Your task to perform on an android device: Toggle the flashlight Image 0: 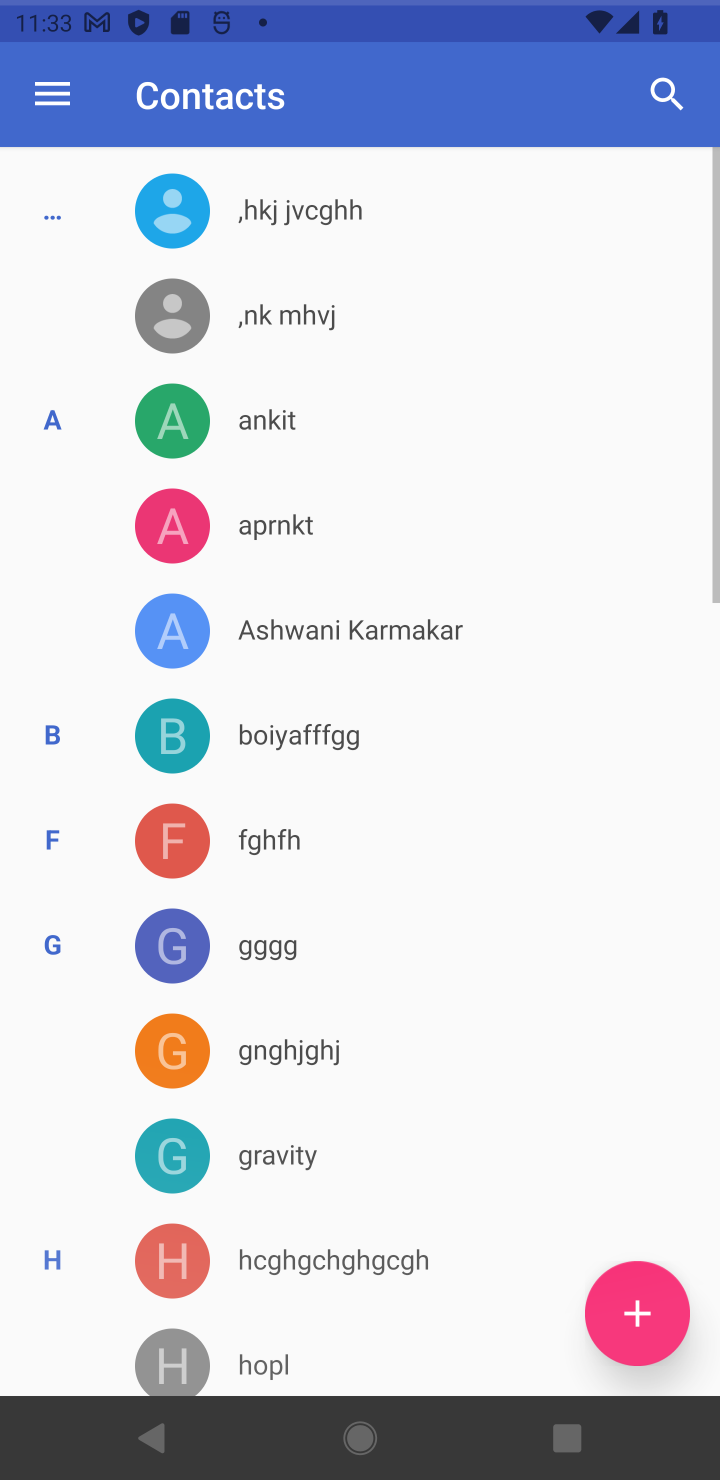
Step 0: press home button
Your task to perform on an android device: Toggle the flashlight Image 1: 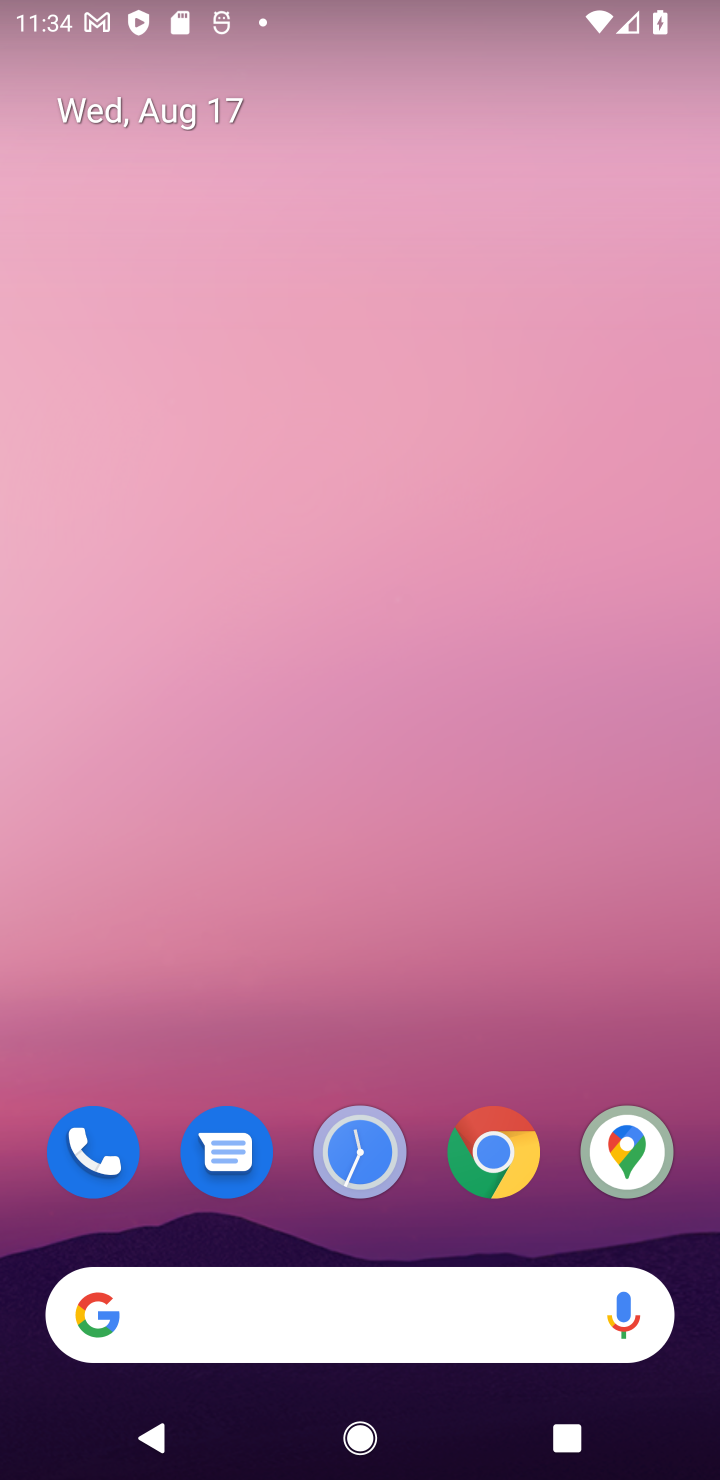
Step 1: drag from (549, 1010) to (387, 52)
Your task to perform on an android device: Toggle the flashlight Image 2: 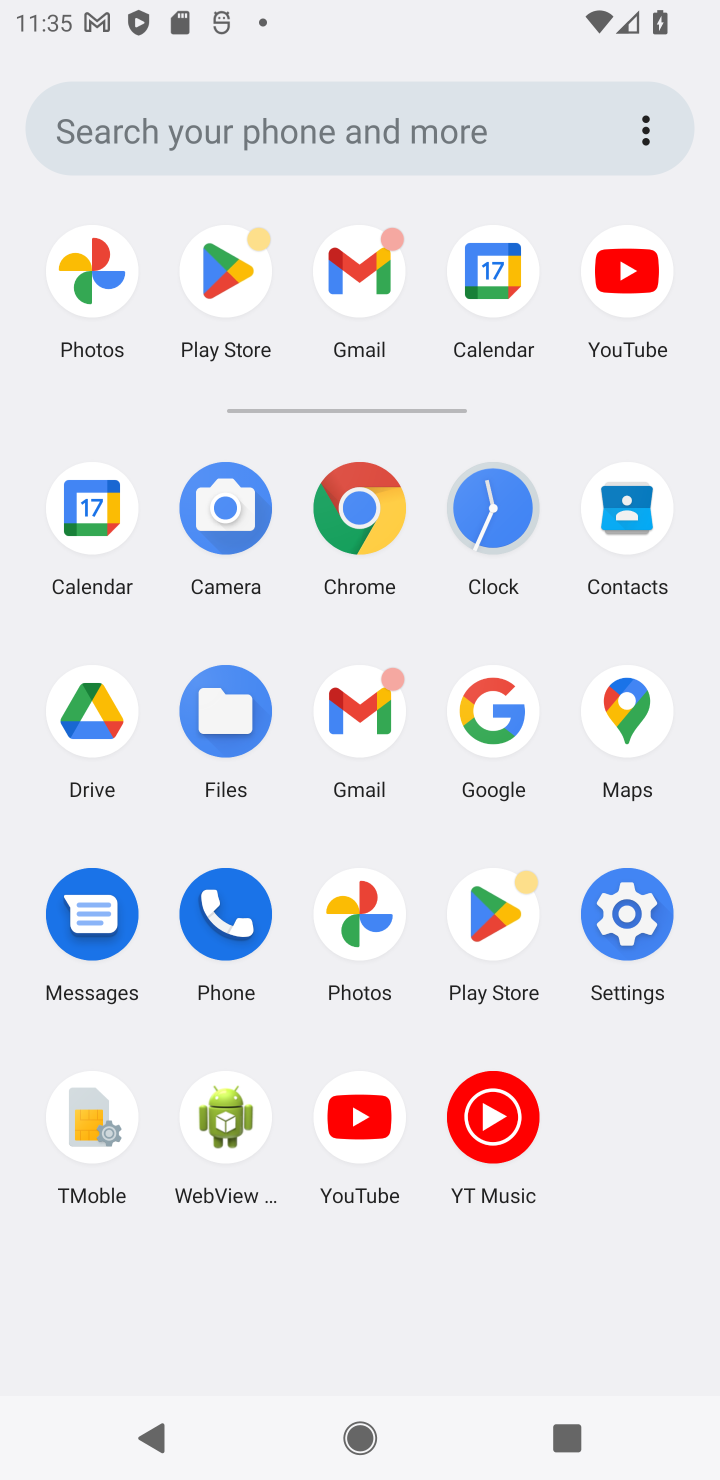
Step 2: click (623, 933)
Your task to perform on an android device: Toggle the flashlight Image 3: 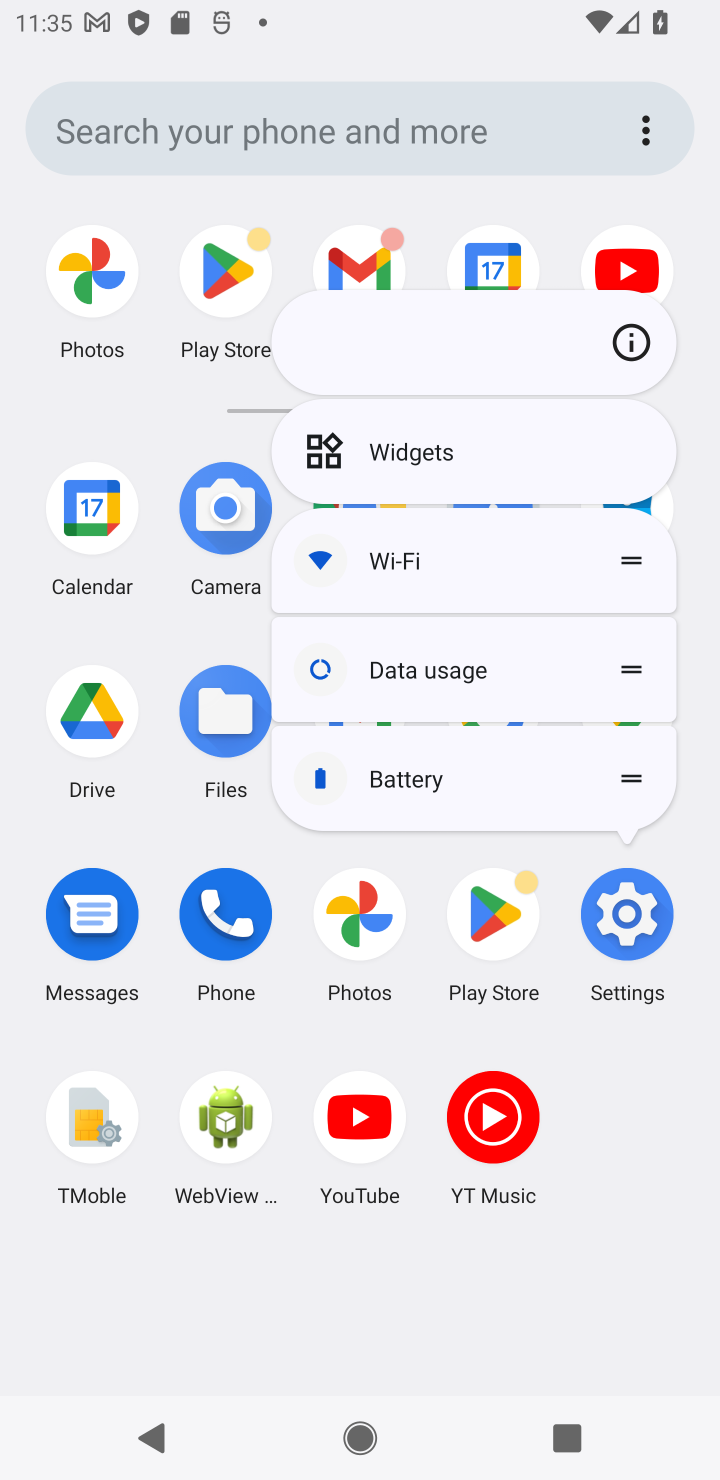
Step 3: click (625, 935)
Your task to perform on an android device: Toggle the flashlight Image 4: 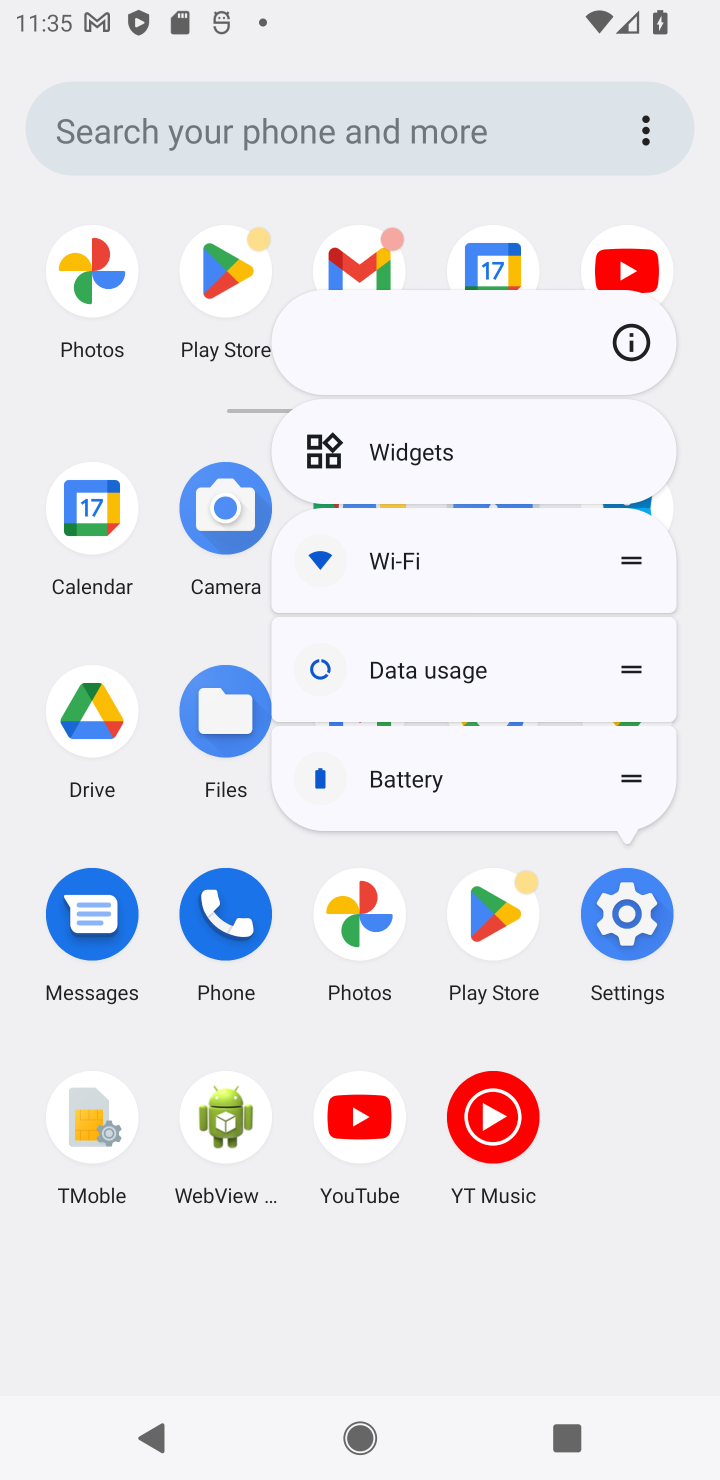
Step 4: click (625, 935)
Your task to perform on an android device: Toggle the flashlight Image 5: 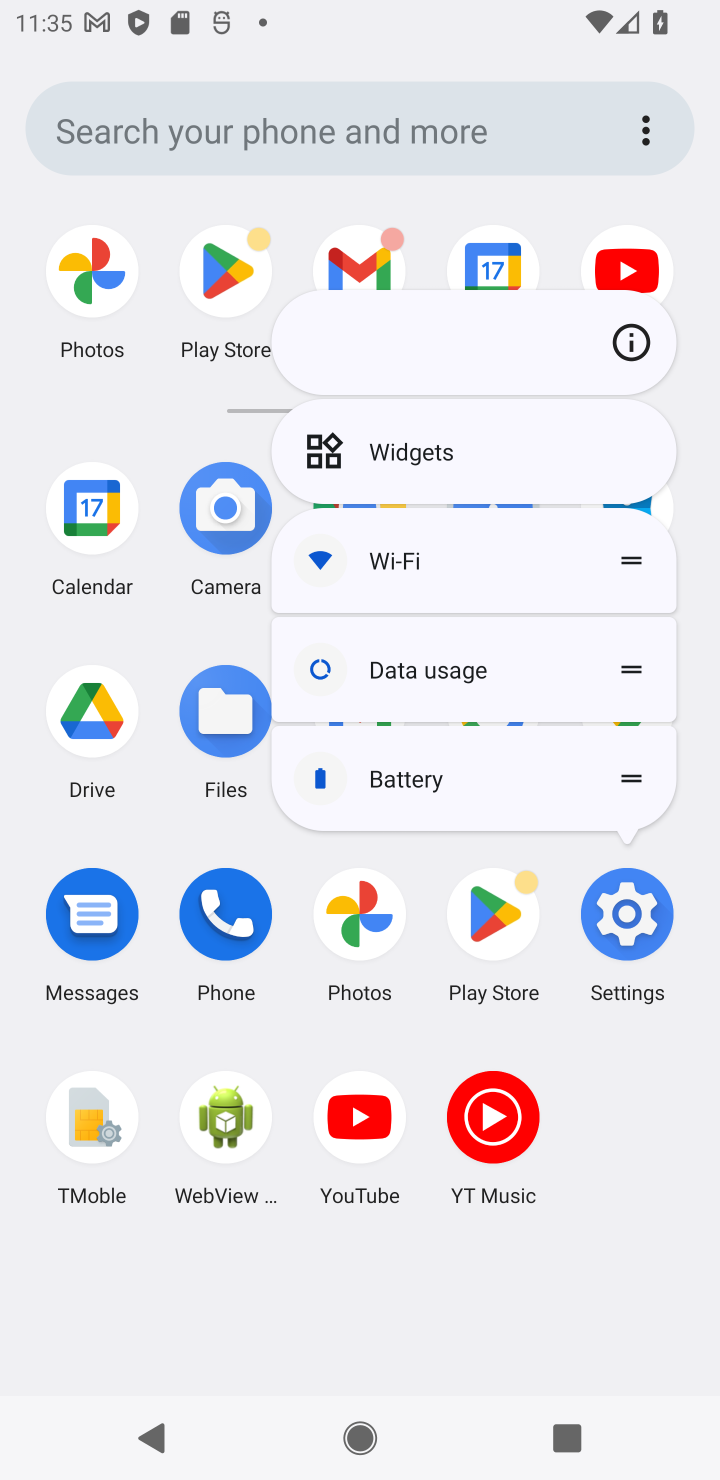
Step 5: click (625, 935)
Your task to perform on an android device: Toggle the flashlight Image 6: 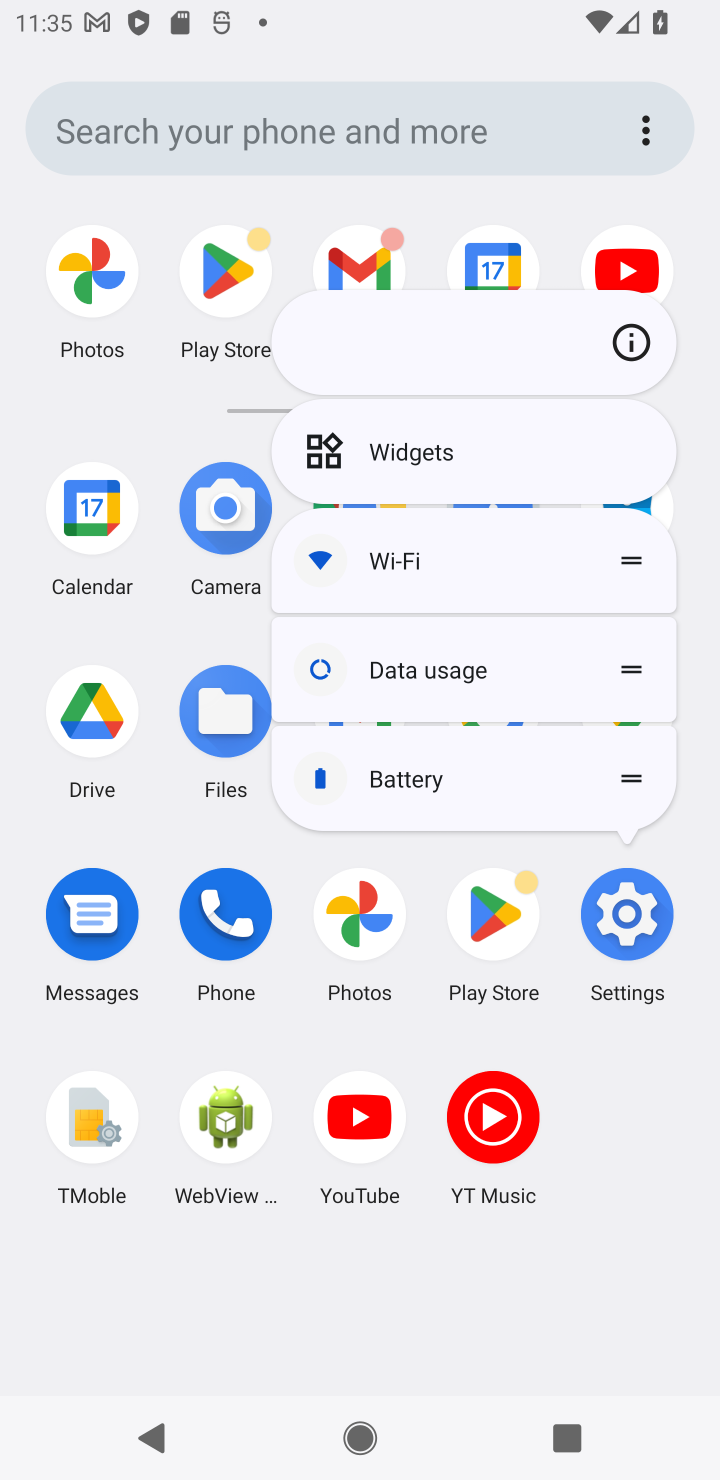
Step 6: click (625, 935)
Your task to perform on an android device: Toggle the flashlight Image 7: 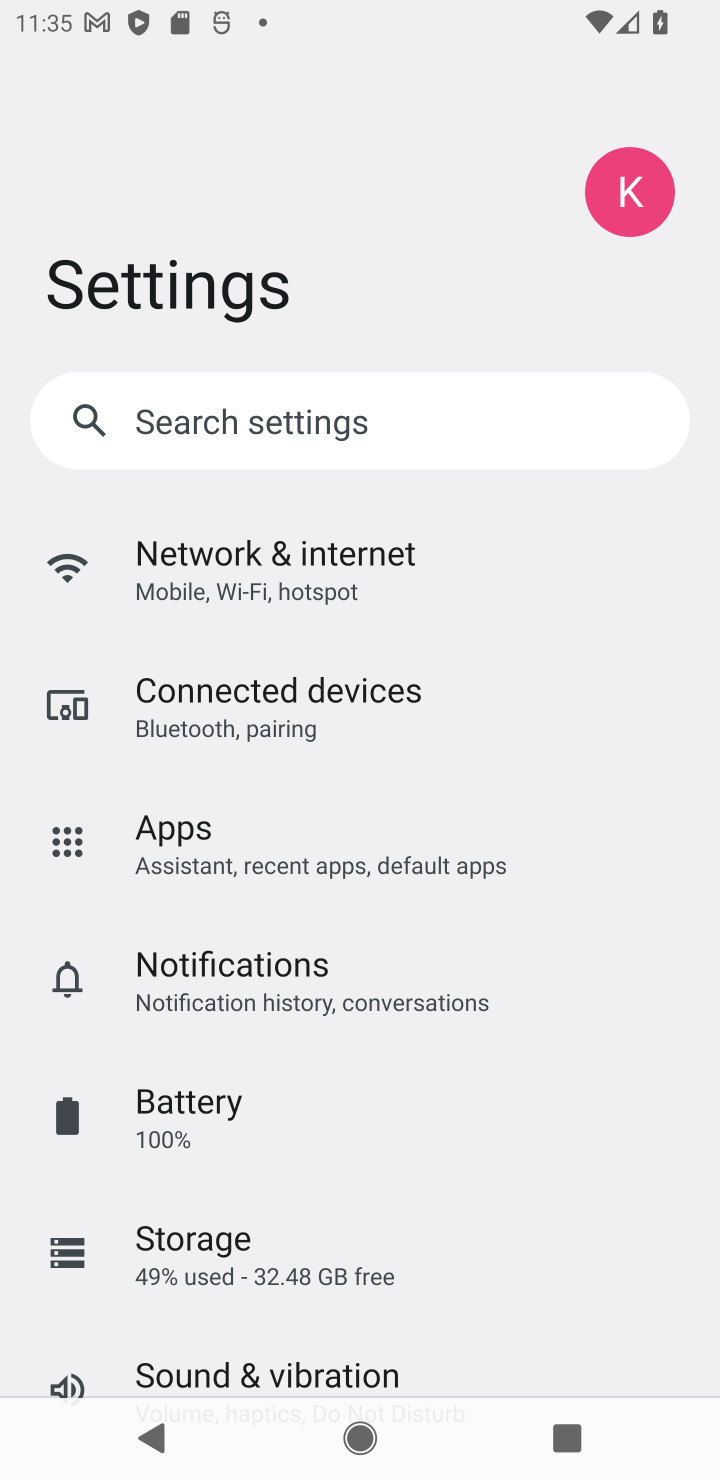
Step 7: task complete